Your task to perform on an android device: Show me recent news Image 0: 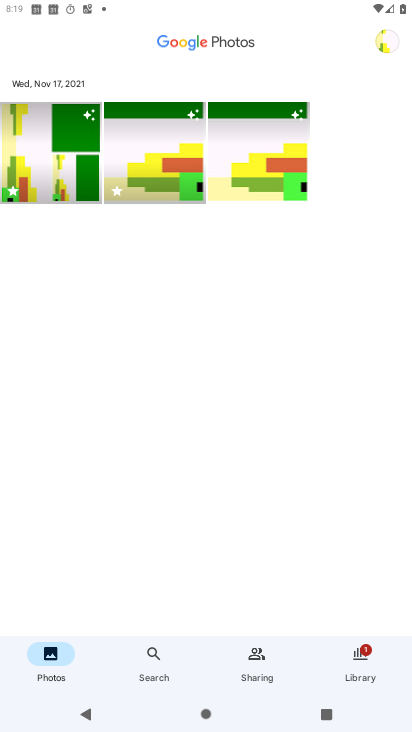
Step 0: press home button
Your task to perform on an android device: Show me recent news Image 1: 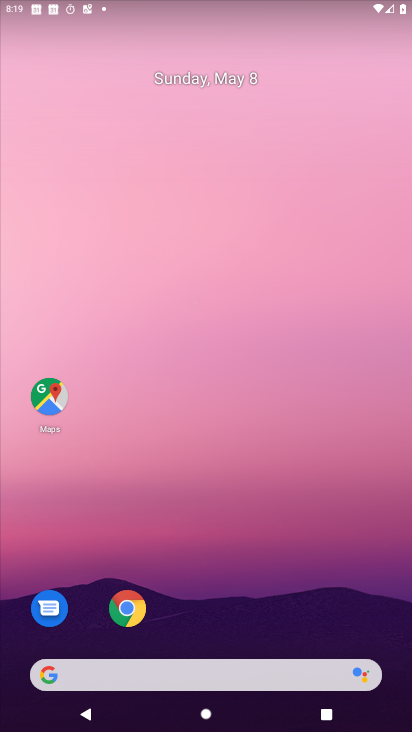
Step 1: click (125, 619)
Your task to perform on an android device: Show me recent news Image 2: 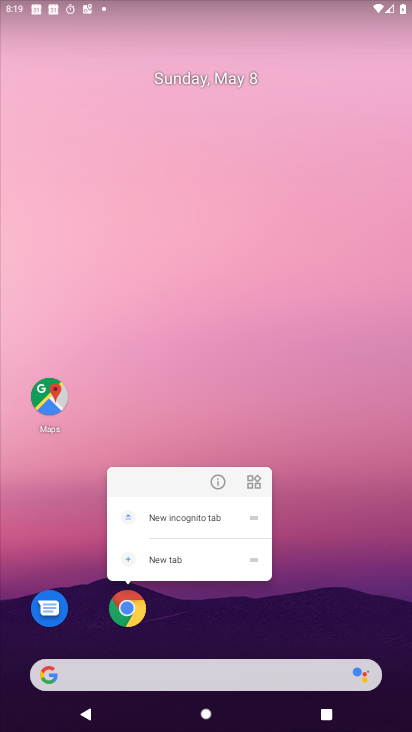
Step 2: click (126, 603)
Your task to perform on an android device: Show me recent news Image 3: 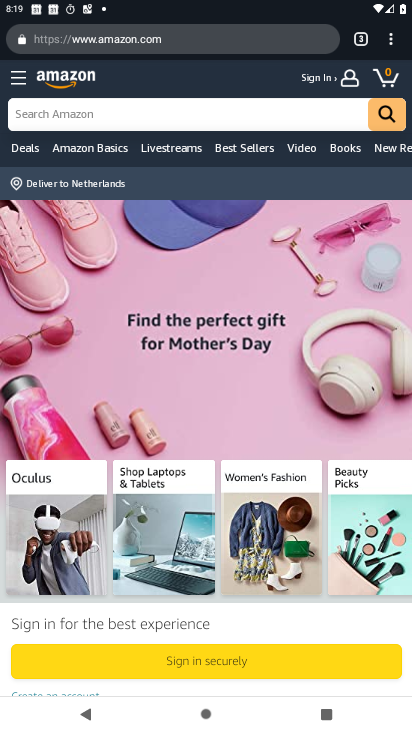
Step 3: click (169, 37)
Your task to perform on an android device: Show me recent news Image 4: 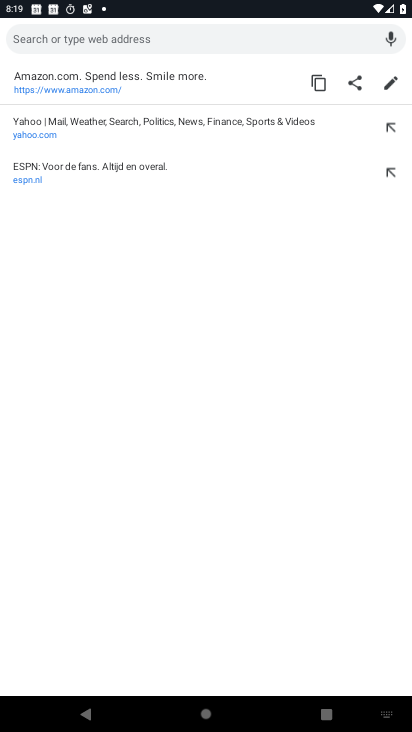
Step 4: type "recent news"
Your task to perform on an android device: Show me recent news Image 5: 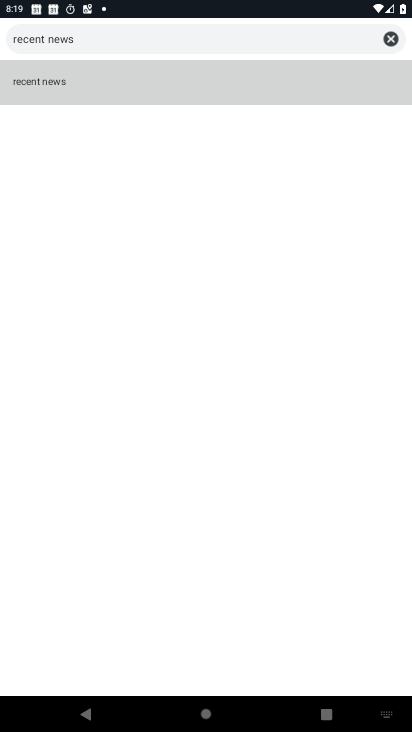
Step 5: click (77, 90)
Your task to perform on an android device: Show me recent news Image 6: 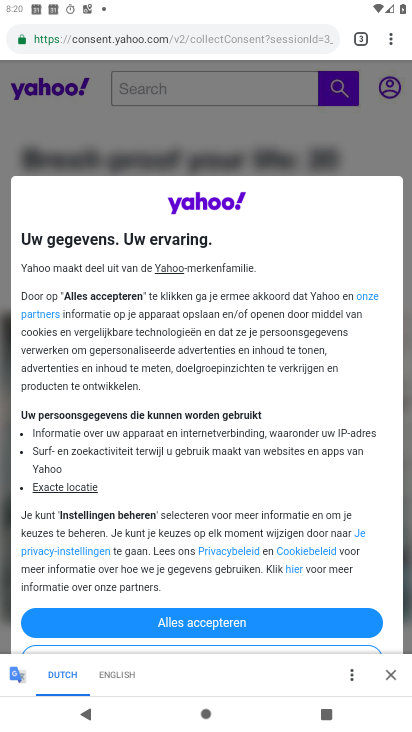
Step 6: task complete